Your task to perform on an android device: open app "Clock" Image 0: 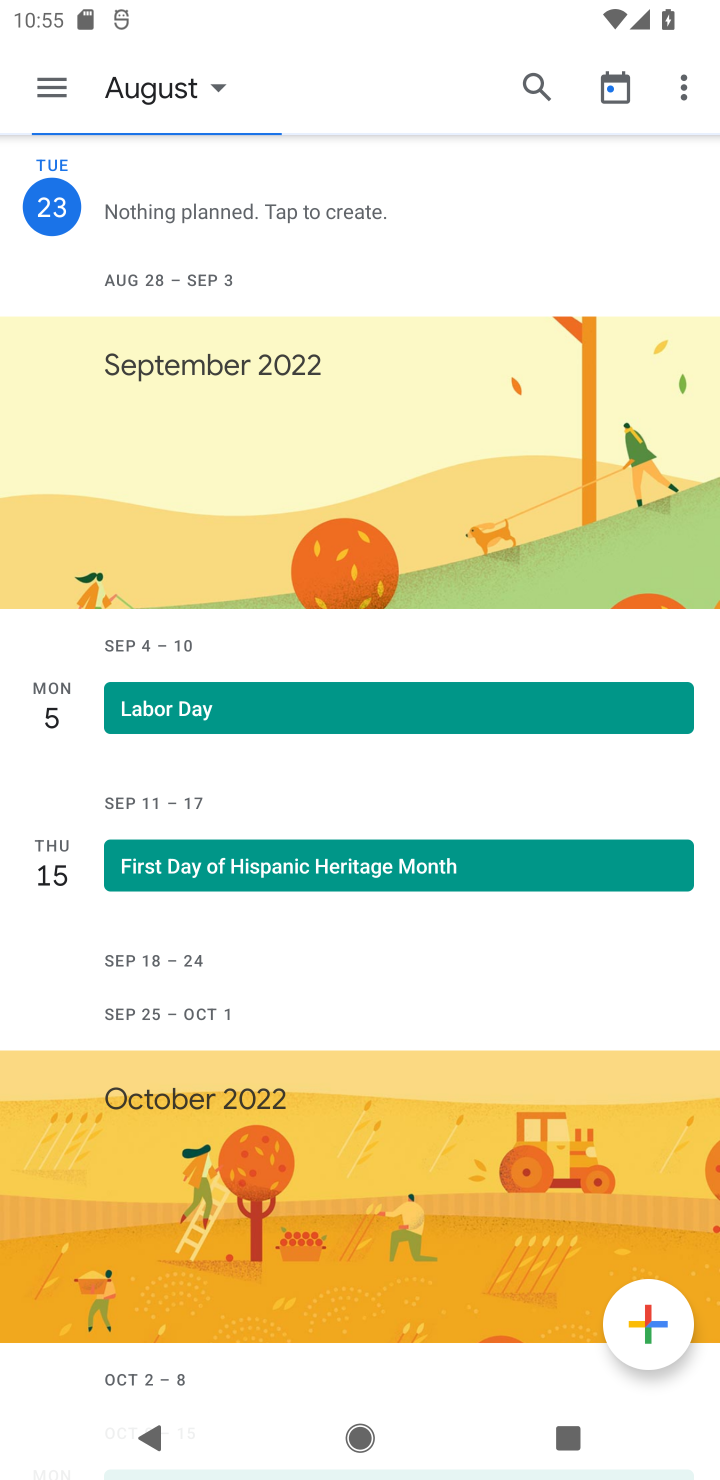
Step 0: click (614, 208)
Your task to perform on an android device: open app "Clock" Image 1: 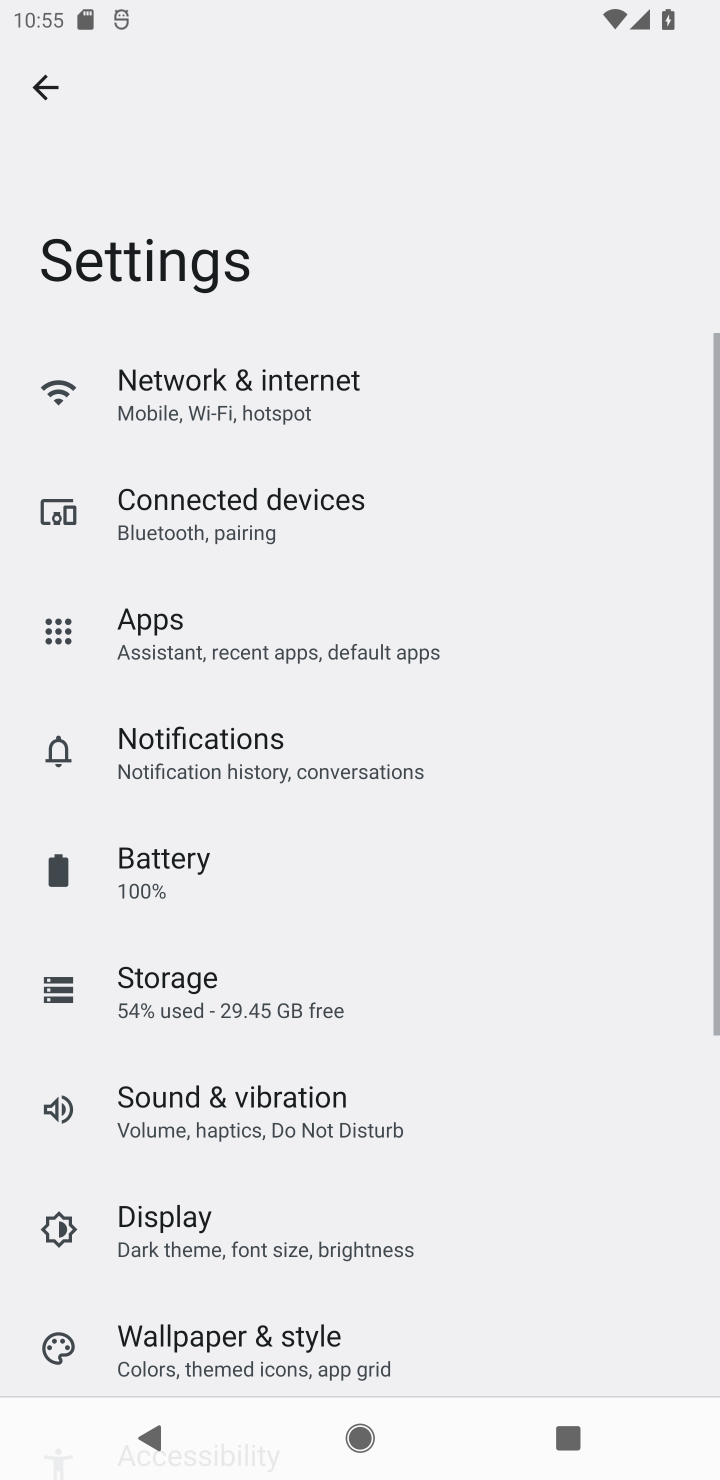
Step 1: press home button
Your task to perform on an android device: open app "Clock" Image 2: 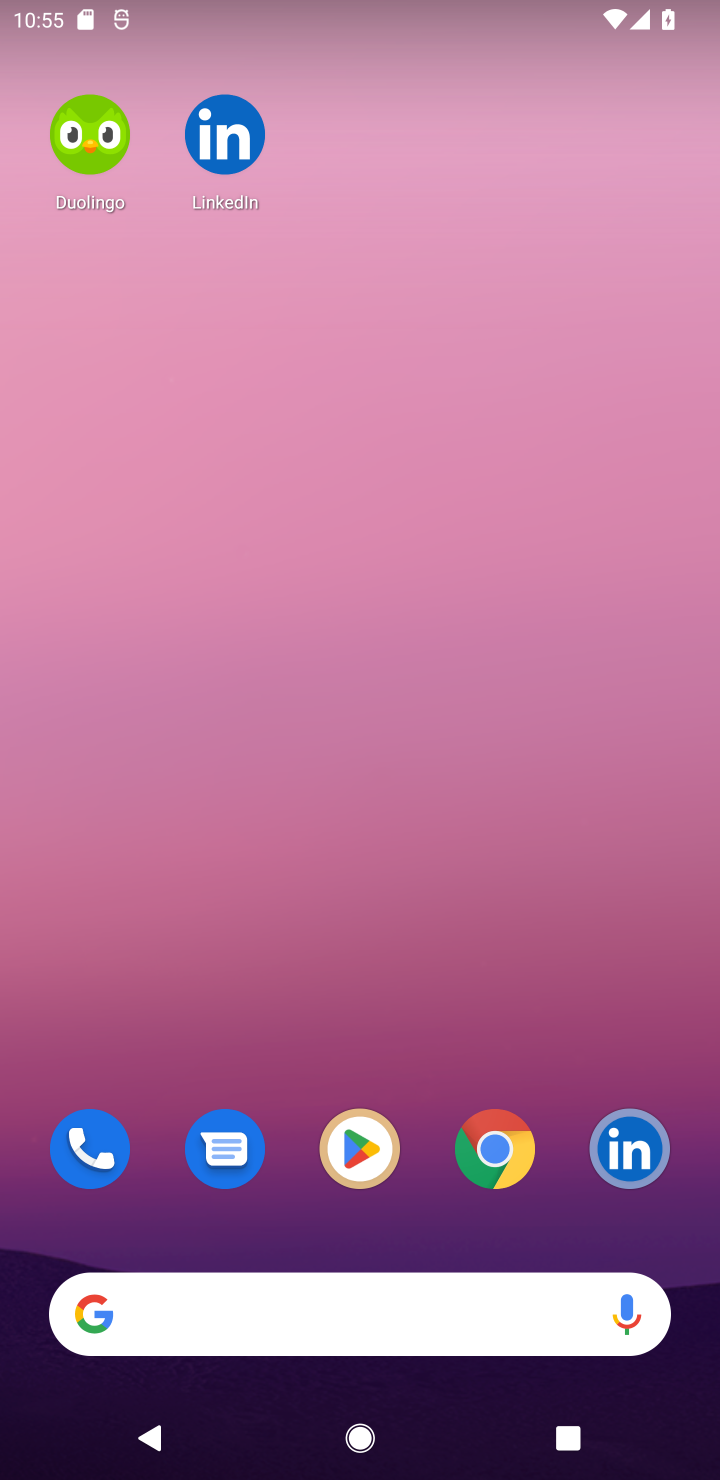
Step 2: drag from (416, 1252) to (371, 463)
Your task to perform on an android device: open app "Clock" Image 3: 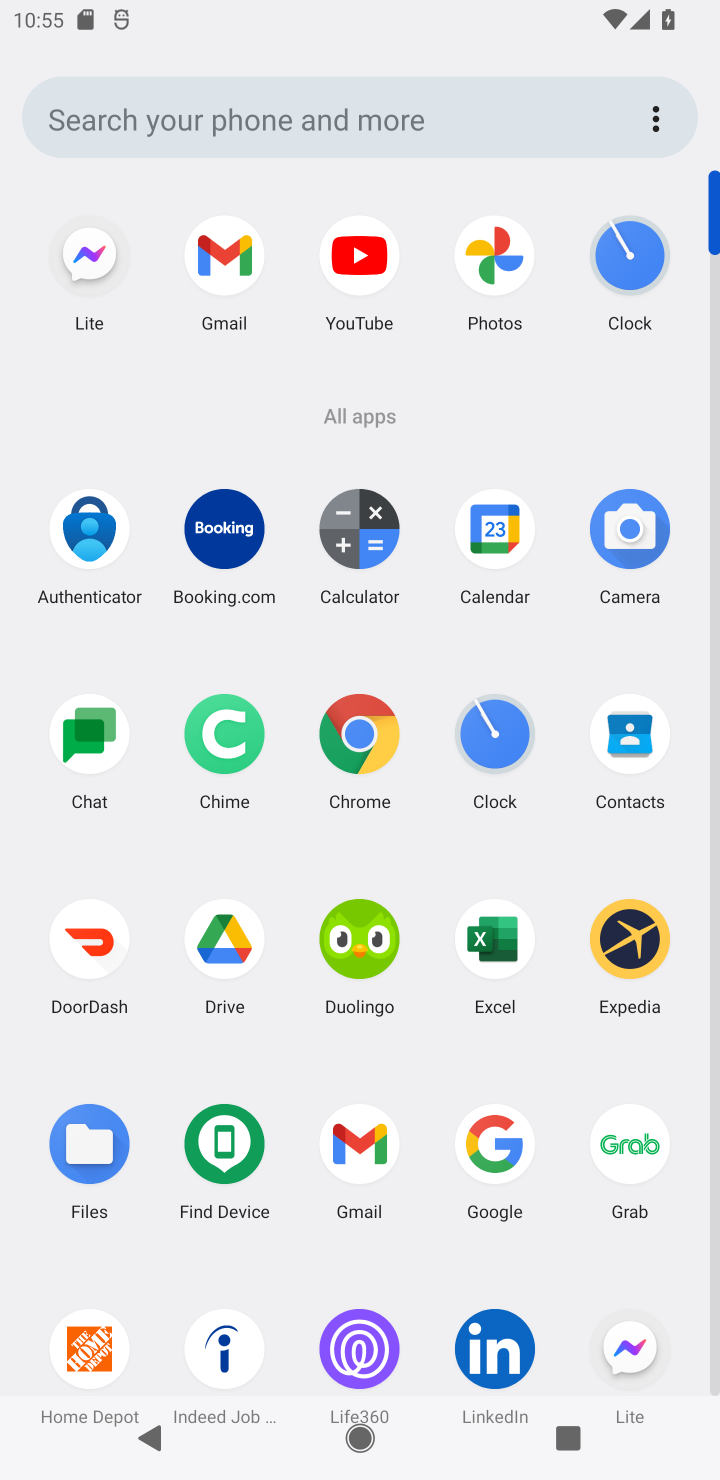
Step 3: click (619, 275)
Your task to perform on an android device: open app "Clock" Image 4: 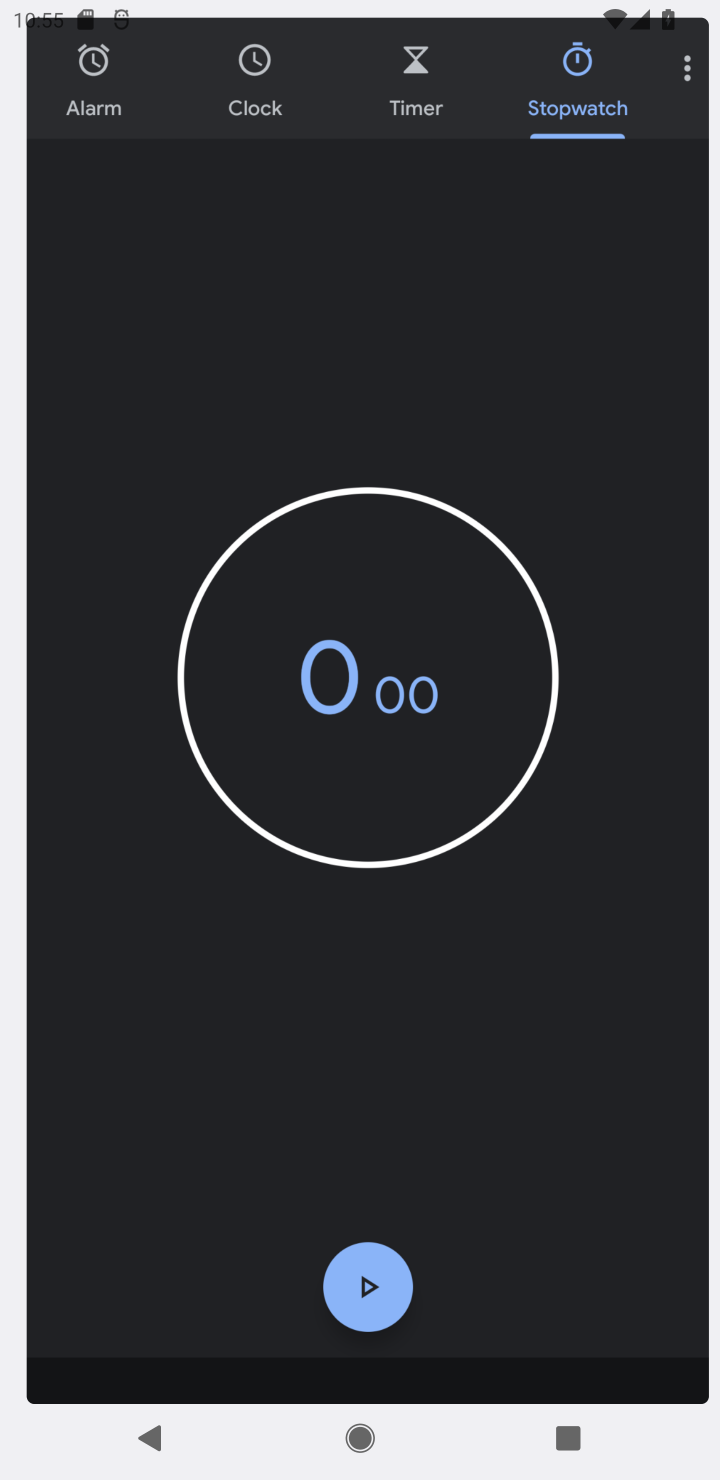
Step 4: task complete